Your task to perform on an android device: find which apps use the phone's location Image 0: 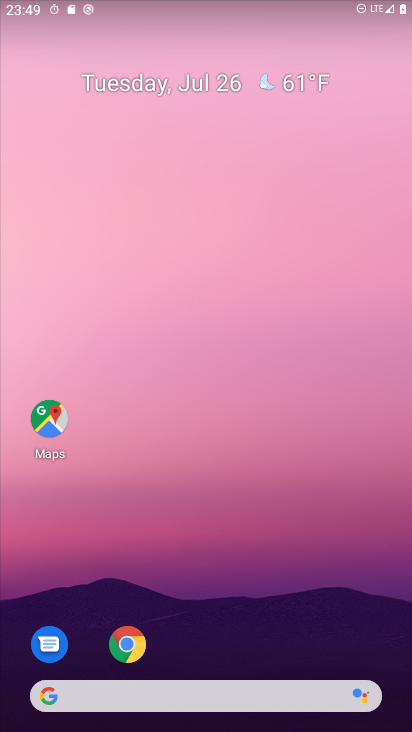
Step 0: drag from (233, 656) to (239, 58)
Your task to perform on an android device: find which apps use the phone's location Image 1: 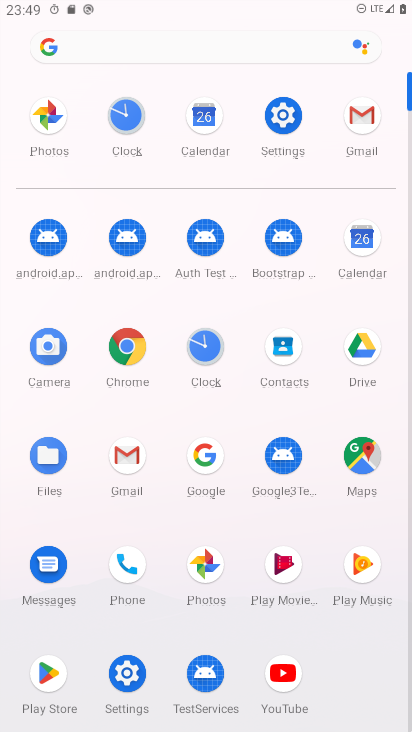
Step 1: click (279, 123)
Your task to perform on an android device: find which apps use the phone's location Image 2: 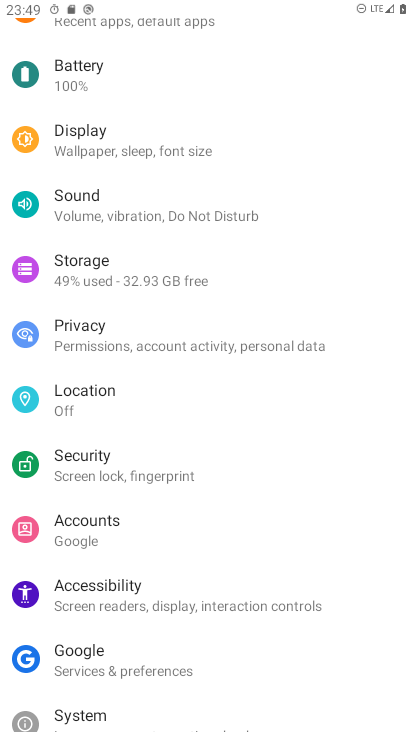
Step 2: click (107, 397)
Your task to perform on an android device: find which apps use the phone's location Image 3: 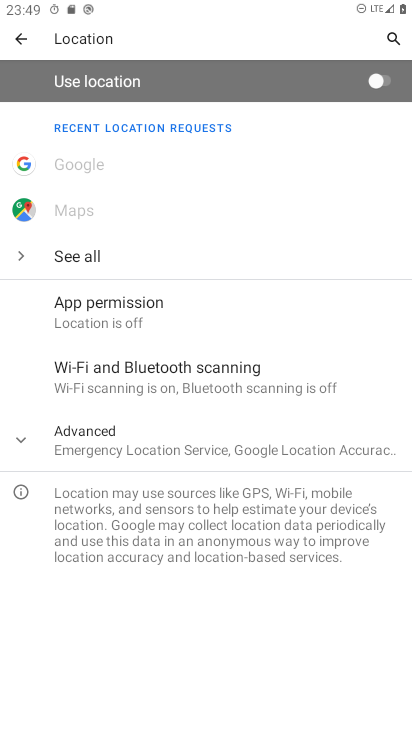
Step 3: click (80, 303)
Your task to perform on an android device: find which apps use the phone's location Image 4: 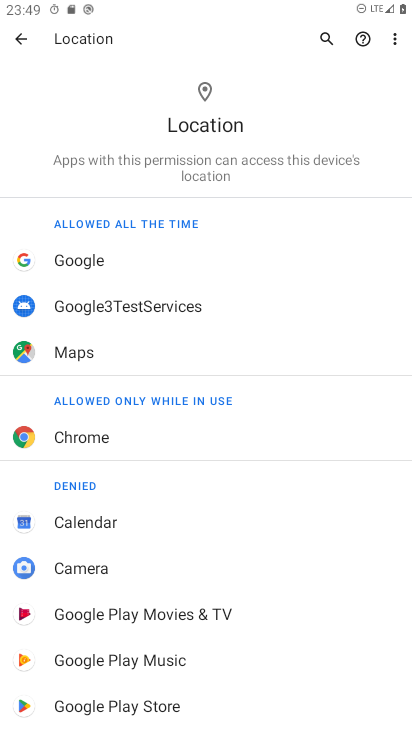
Step 4: task complete